Your task to perform on an android device: add a contact Image 0: 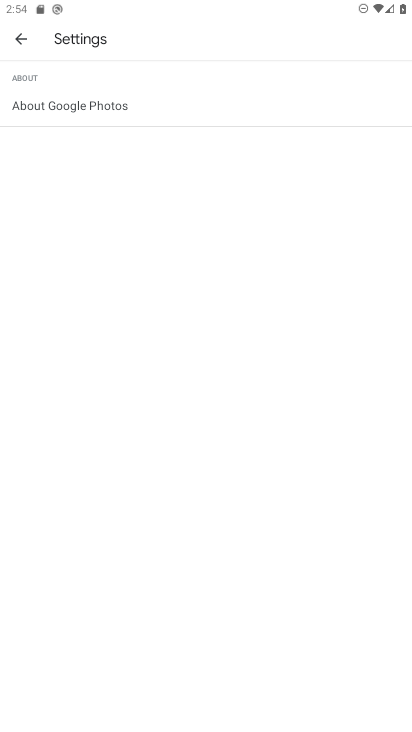
Step 0: press home button
Your task to perform on an android device: add a contact Image 1: 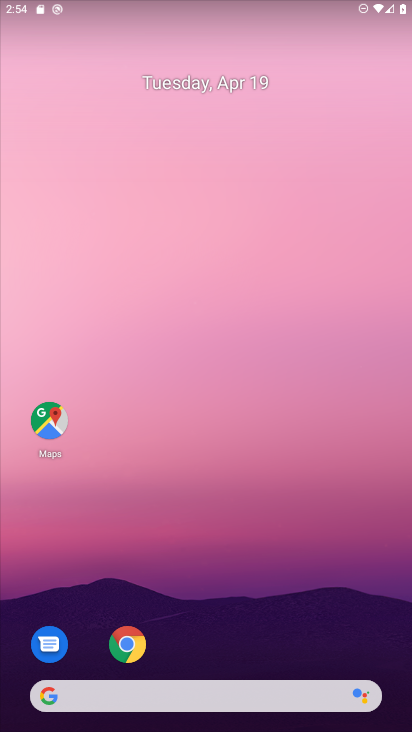
Step 1: drag from (183, 633) to (155, 126)
Your task to perform on an android device: add a contact Image 2: 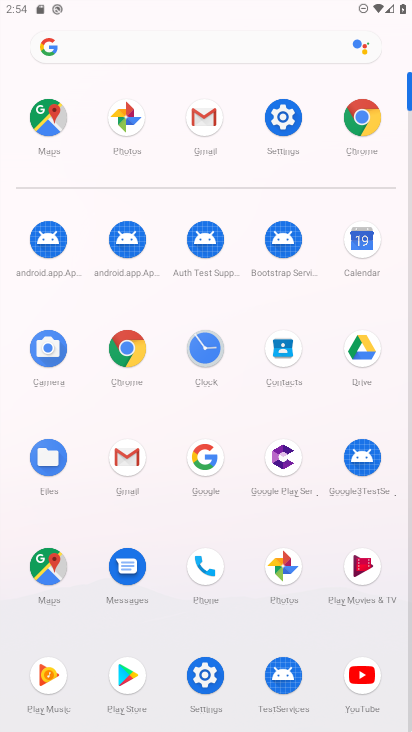
Step 2: click (283, 357)
Your task to perform on an android device: add a contact Image 3: 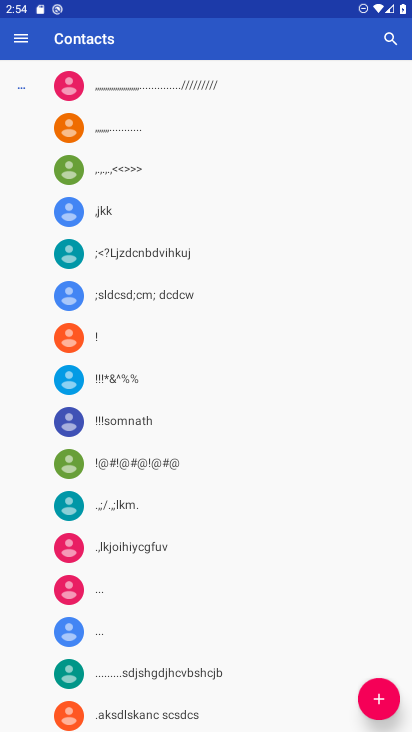
Step 3: click (383, 704)
Your task to perform on an android device: add a contact Image 4: 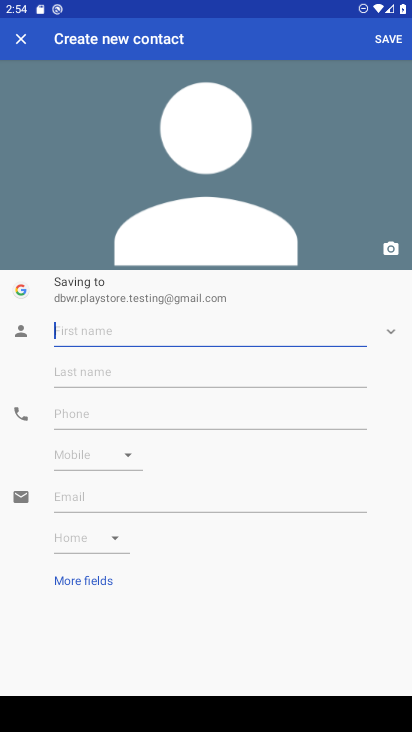
Step 4: click (118, 335)
Your task to perform on an android device: add a contact Image 5: 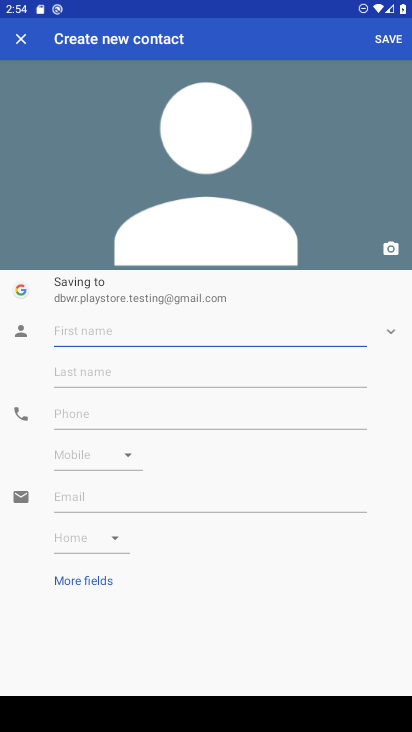
Step 5: type "ghhhhh"
Your task to perform on an android device: add a contact Image 6: 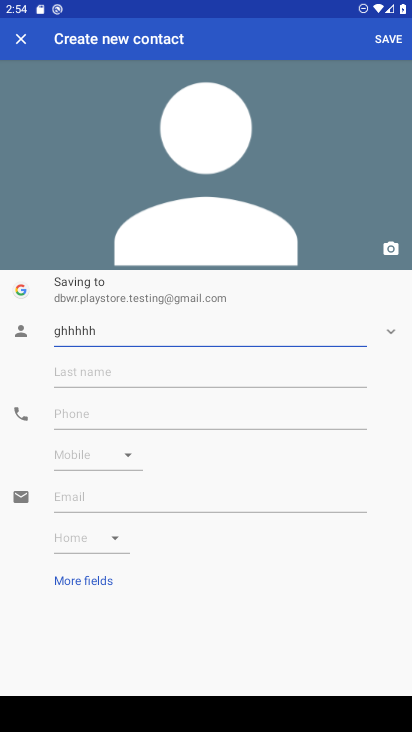
Step 6: click (398, 42)
Your task to perform on an android device: add a contact Image 7: 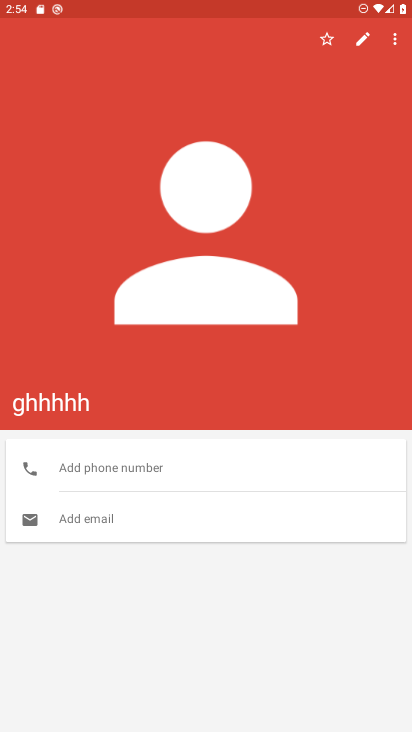
Step 7: task complete